Your task to perform on an android device: find photos in the google photos app Image 0: 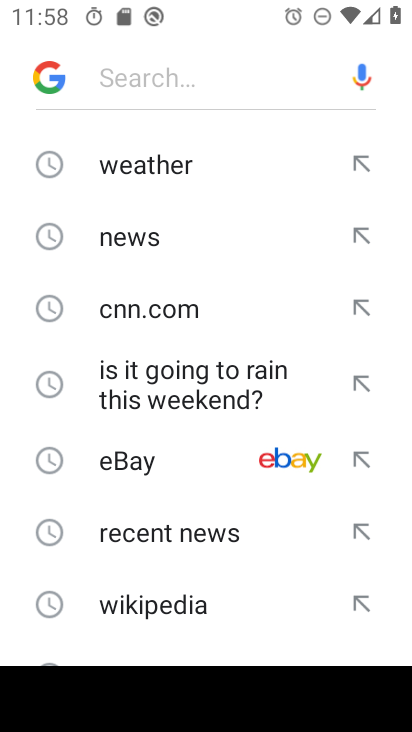
Step 0: press back button
Your task to perform on an android device: find photos in the google photos app Image 1: 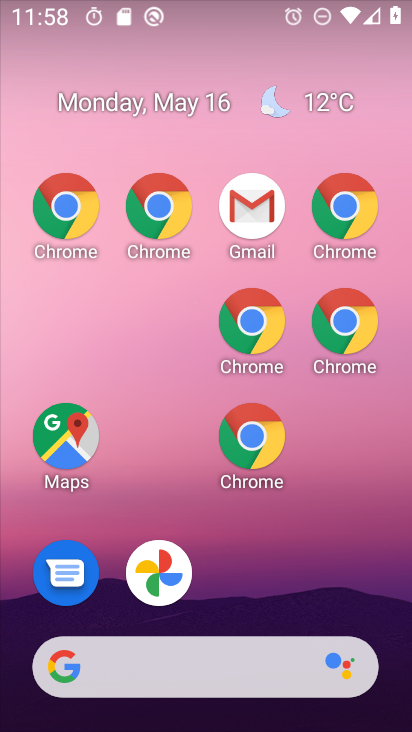
Step 1: drag from (327, 628) to (268, 112)
Your task to perform on an android device: find photos in the google photos app Image 2: 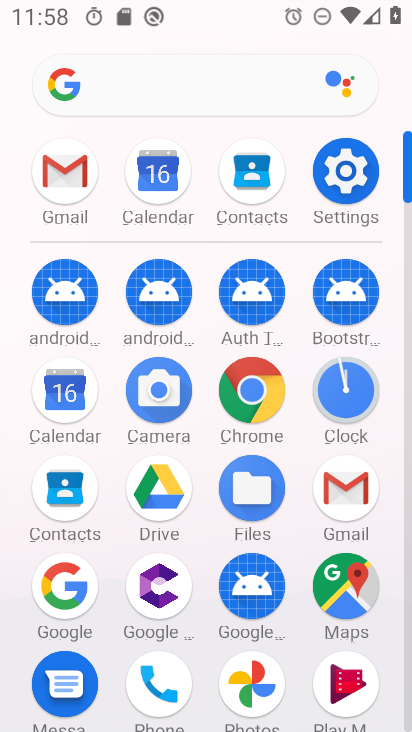
Step 2: click (263, 678)
Your task to perform on an android device: find photos in the google photos app Image 3: 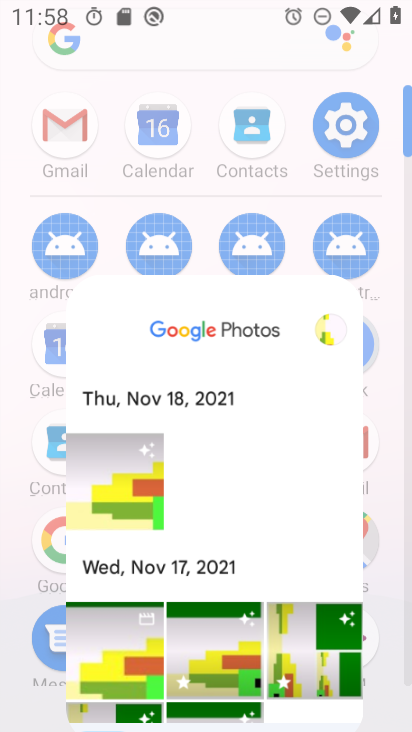
Step 3: click (259, 669)
Your task to perform on an android device: find photos in the google photos app Image 4: 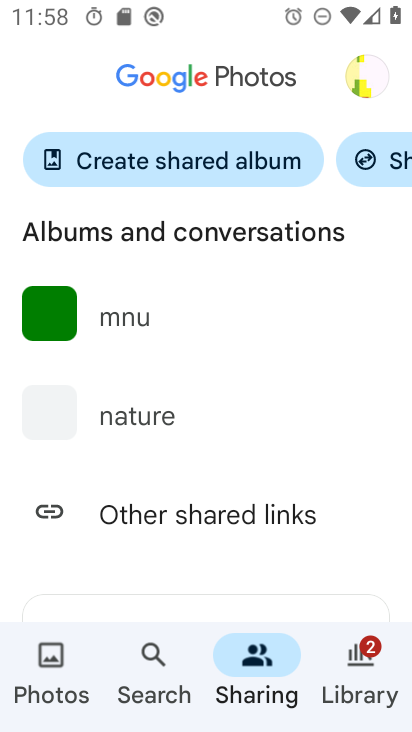
Step 4: click (70, 682)
Your task to perform on an android device: find photos in the google photos app Image 5: 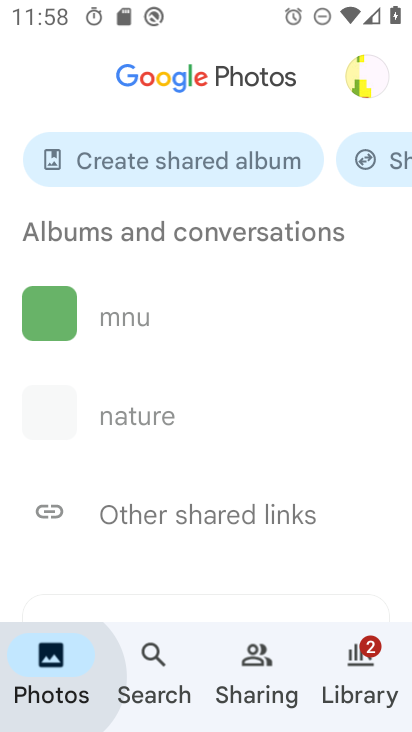
Step 5: click (67, 676)
Your task to perform on an android device: find photos in the google photos app Image 6: 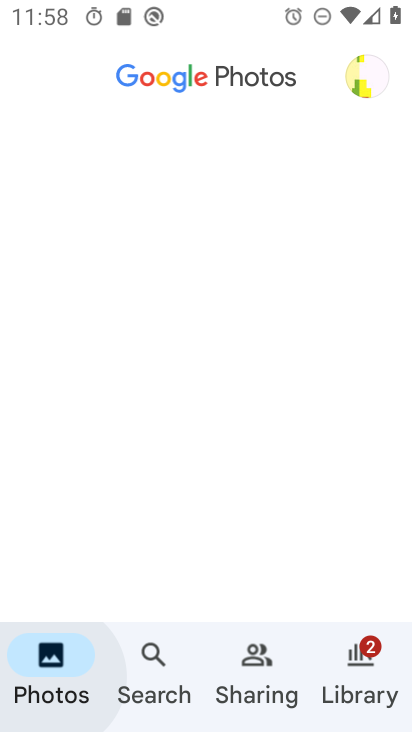
Step 6: click (60, 673)
Your task to perform on an android device: find photos in the google photos app Image 7: 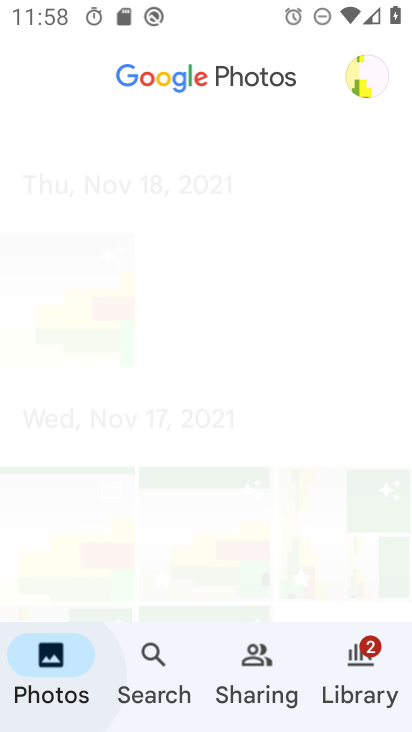
Step 7: click (61, 670)
Your task to perform on an android device: find photos in the google photos app Image 8: 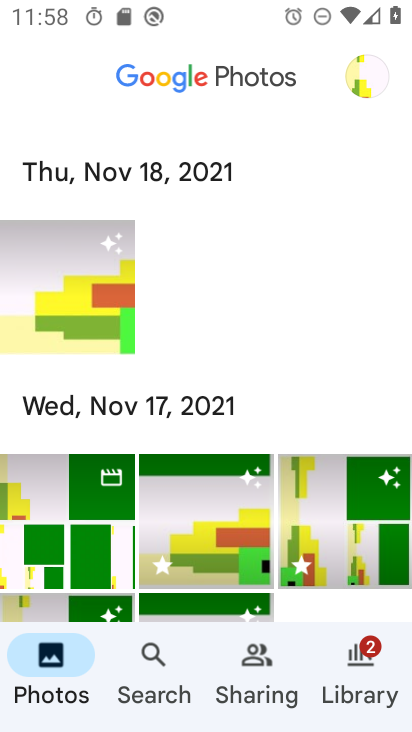
Step 8: task complete